Your task to perform on an android device: Open privacy settings Image 0: 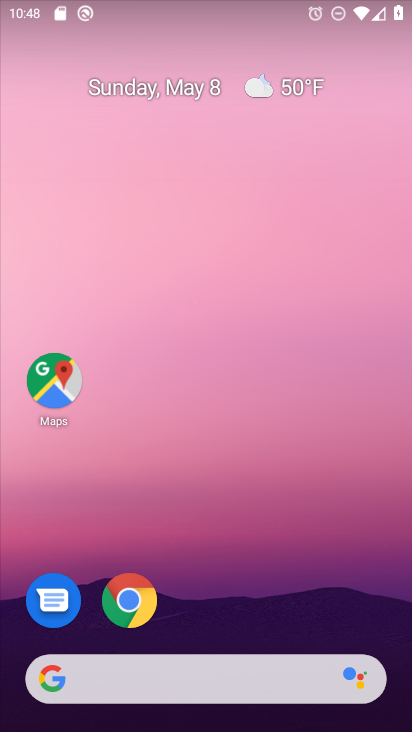
Step 0: drag from (207, 727) to (201, 231)
Your task to perform on an android device: Open privacy settings Image 1: 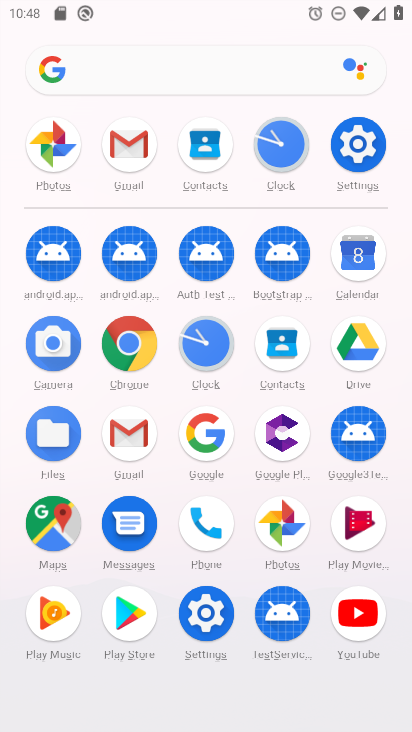
Step 1: click (355, 142)
Your task to perform on an android device: Open privacy settings Image 2: 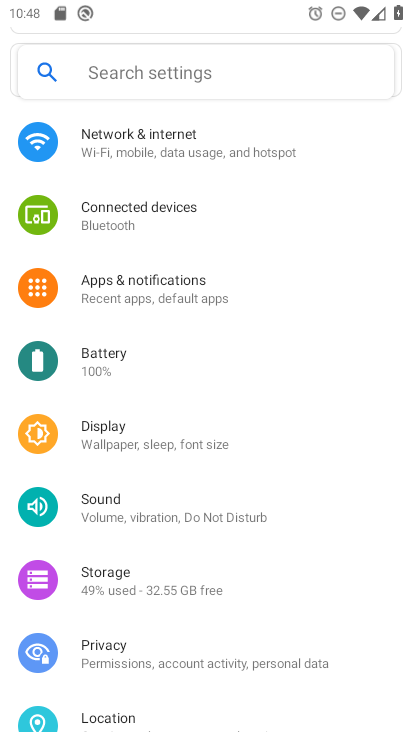
Step 2: click (112, 659)
Your task to perform on an android device: Open privacy settings Image 3: 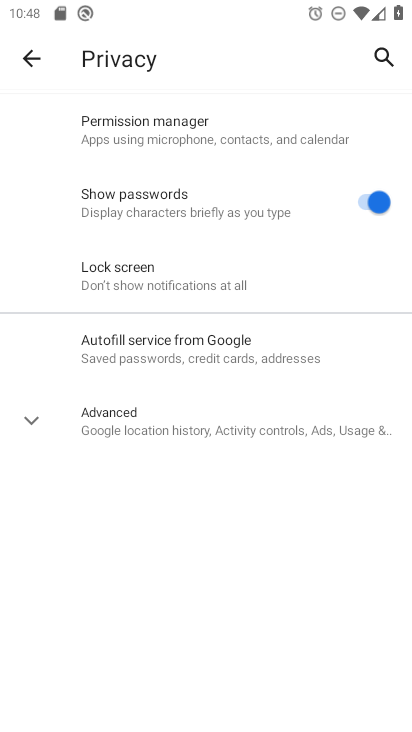
Step 3: task complete